Your task to perform on an android device: snooze an email in the gmail app Image 0: 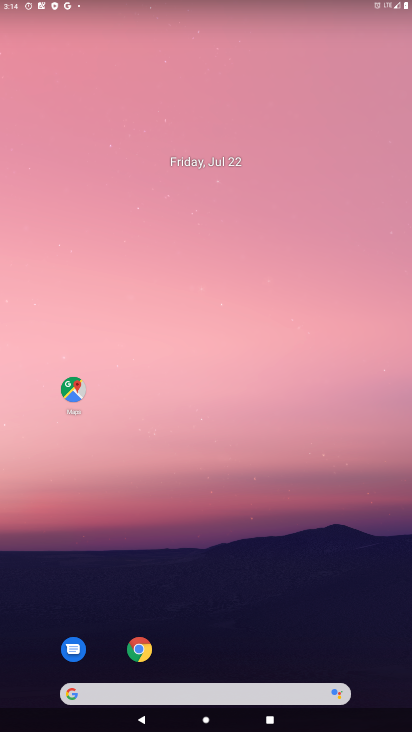
Step 0: drag from (263, 646) to (262, 140)
Your task to perform on an android device: snooze an email in the gmail app Image 1: 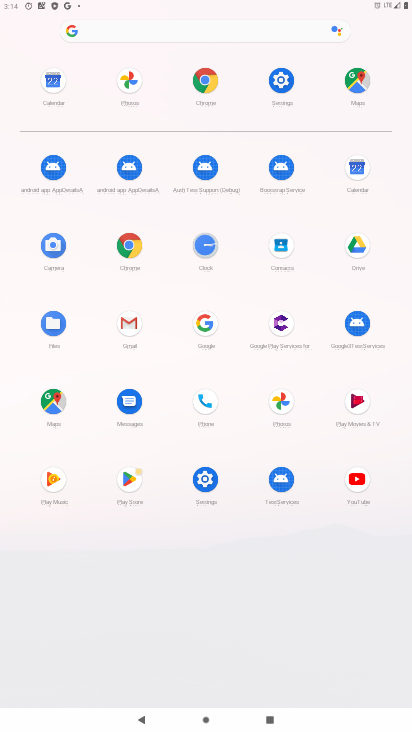
Step 1: click (135, 324)
Your task to perform on an android device: snooze an email in the gmail app Image 2: 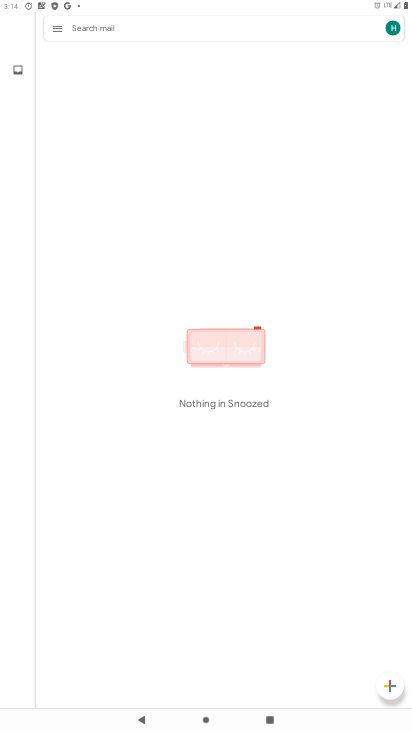
Step 2: click (55, 30)
Your task to perform on an android device: snooze an email in the gmail app Image 3: 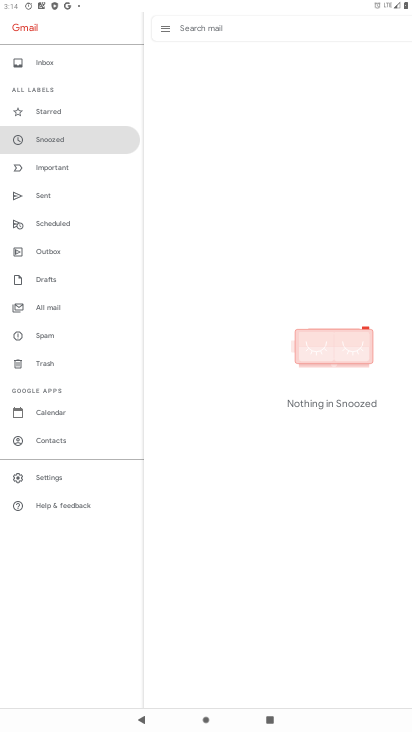
Step 3: click (53, 310)
Your task to perform on an android device: snooze an email in the gmail app Image 4: 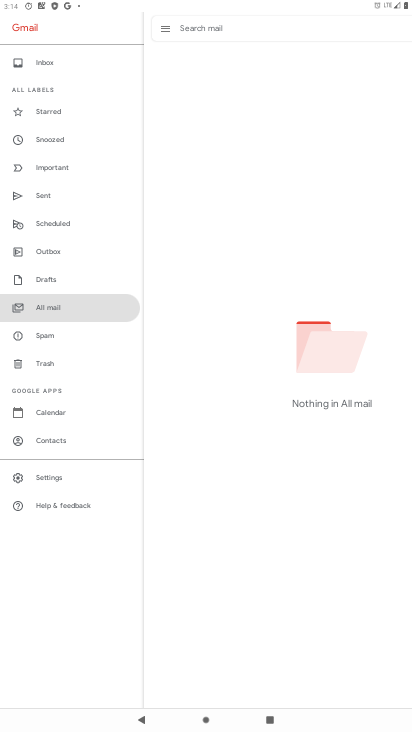
Step 4: task complete